Your task to perform on an android device: Go to battery settings Image 0: 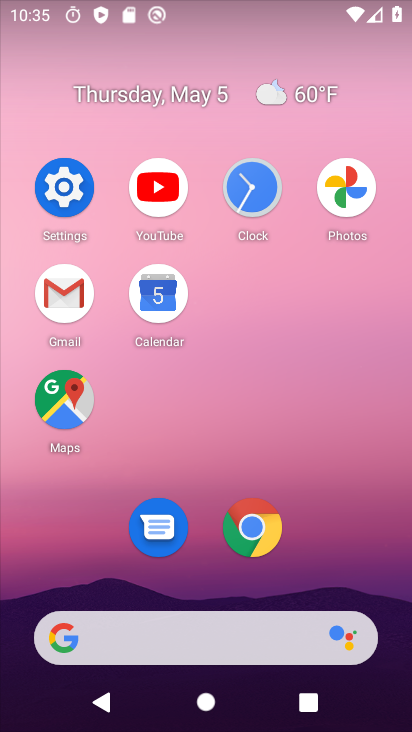
Step 0: click (59, 199)
Your task to perform on an android device: Go to battery settings Image 1: 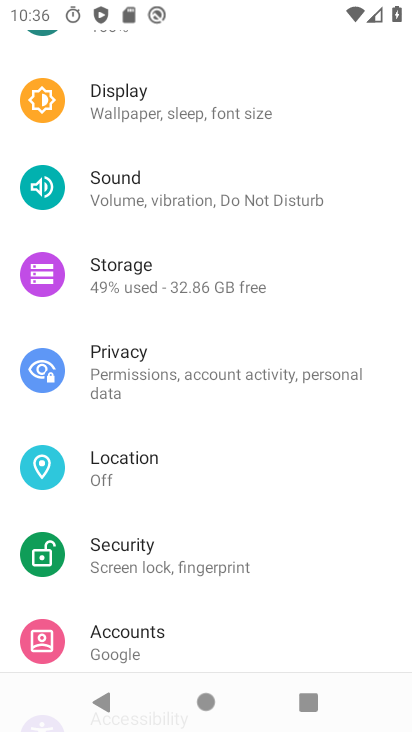
Step 1: drag from (228, 197) to (248, 552)
Your task to perform on an android device: Go to battery settings Image 2: 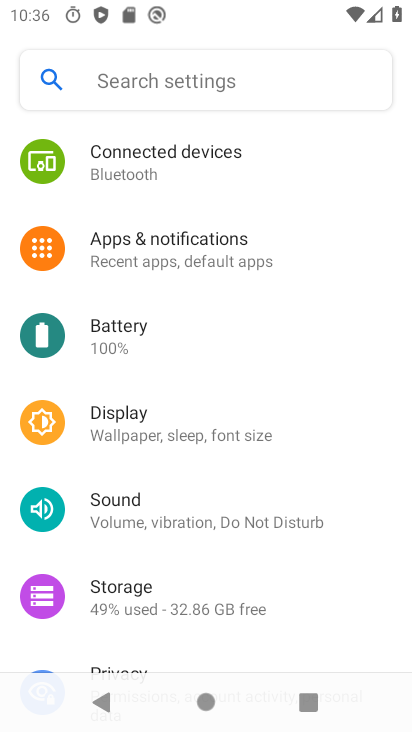
Step 2: click (140, 349)
Your task to perform on an android device: Go to battery settings Image 3: 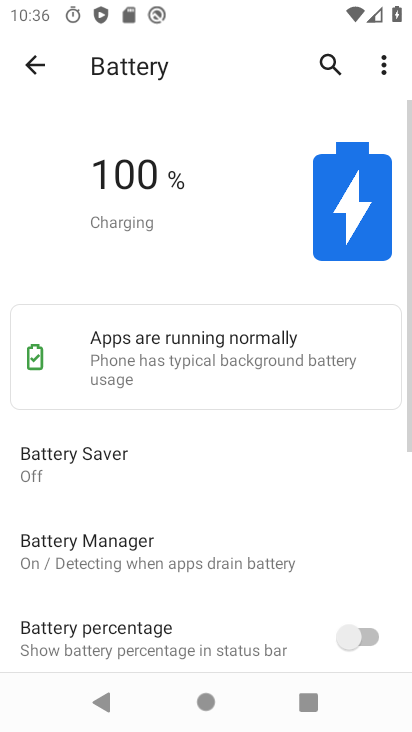
Step 3: click (387, 76)
Your task to perform on an android device: Go to battery settings Image 4: 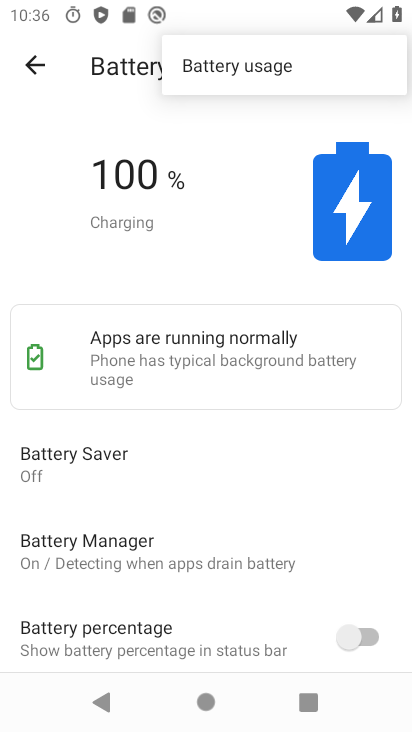
Step 4: task complete